Your task to perform on an android device: check battery use Image 0: 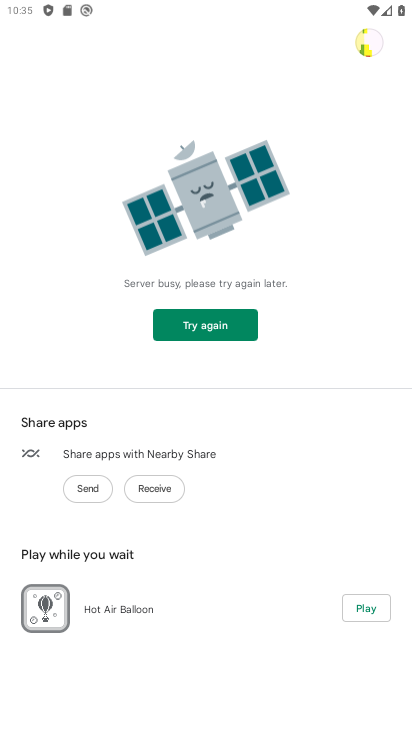
Step 0: press home button
Your task to perform on an android device: check battery use Image 1: 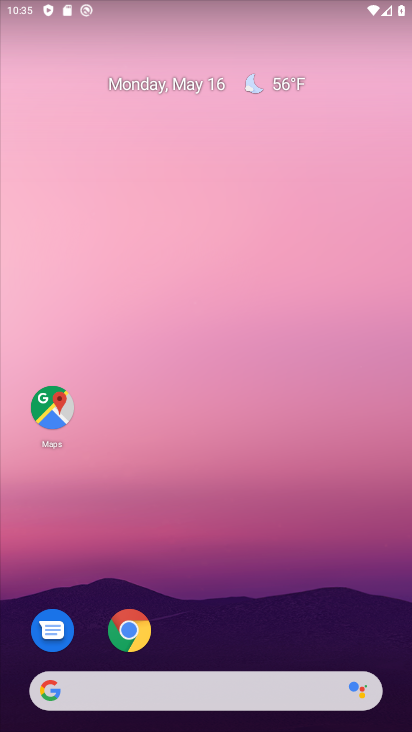
Step 1: drag from (220, 649) to (321, 140)
Your task to perform on an android device: check battery use Image 2: 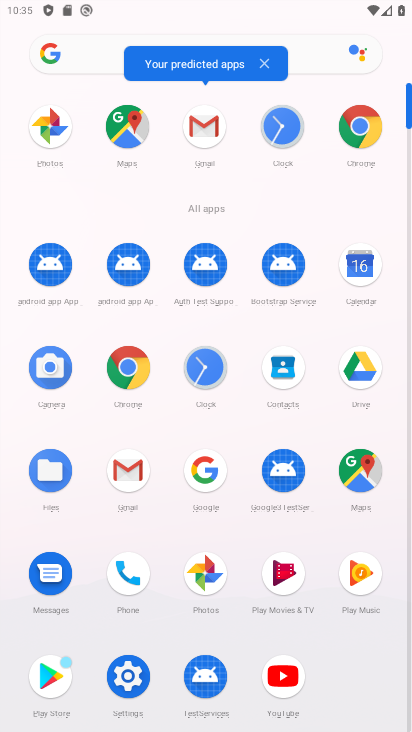
Step 2: click (139, 683)
Your task to perform on an android device: check battery use Image 3: 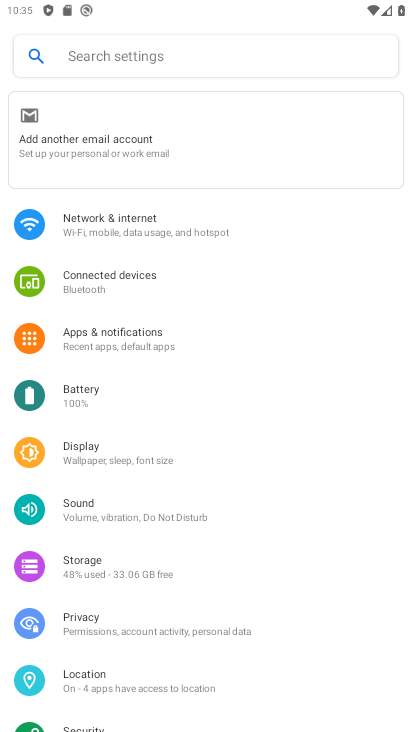
Step 3: click (147, 408)
Your task to perform on an android device: check battery use Image 4: 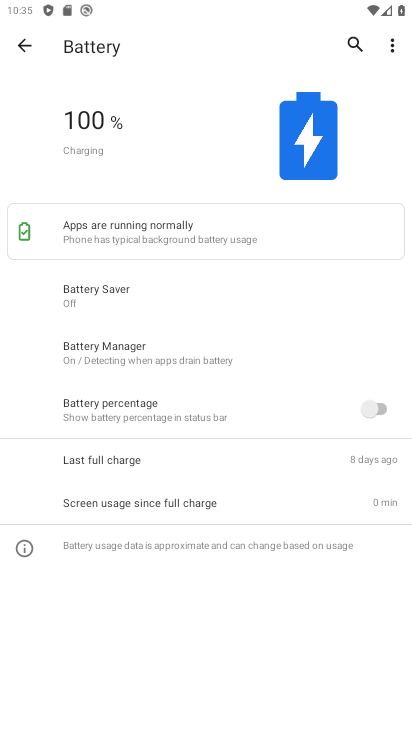
Step 4: click (396, 50)
Your task to perform on an android device: check battery use Image 5: 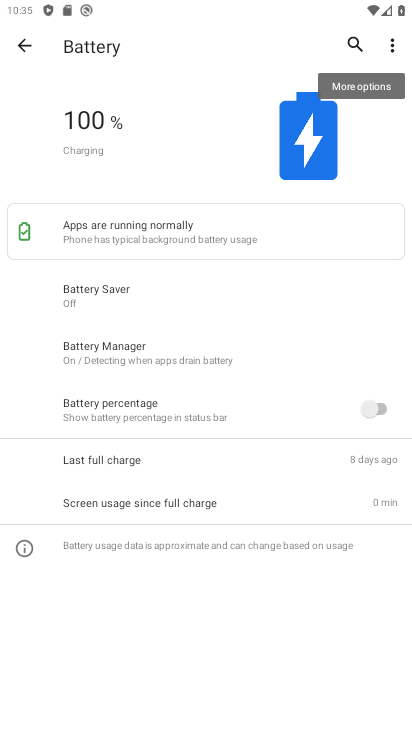
Step 5: click (374, 80)
Your task to perform on an android device: check battery use Image 6: 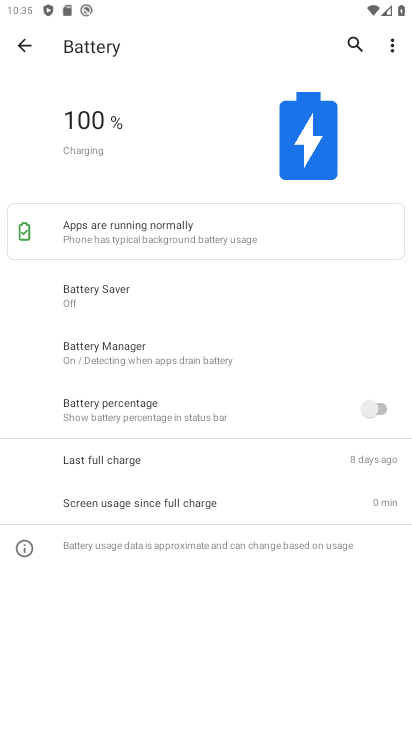
Step 6: click (392, 42)
Your task to perform on an android device: check battery use Image 7: 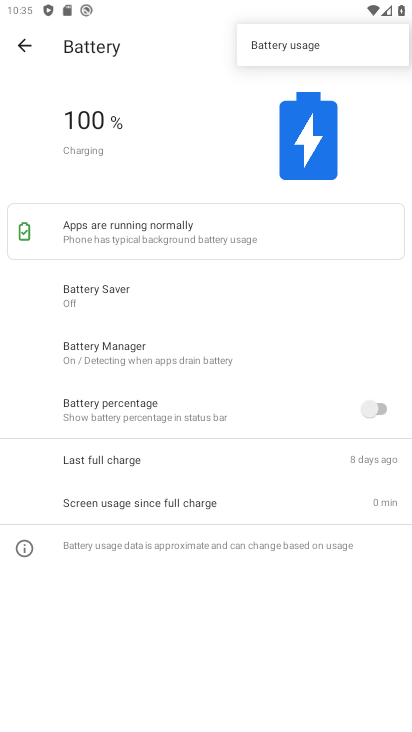
Step 7: click (385, 45)
Your task to perform on an android device: check battery use Image 8: 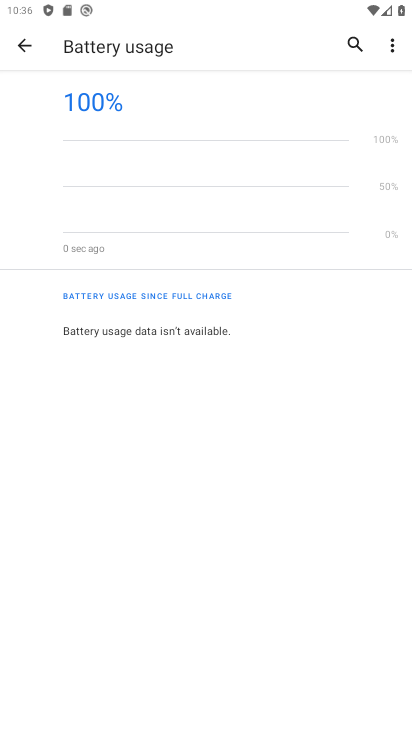
Step 8: task complete